Your task to perform on an android device: Clear the cart on walmart.com. Image 0: 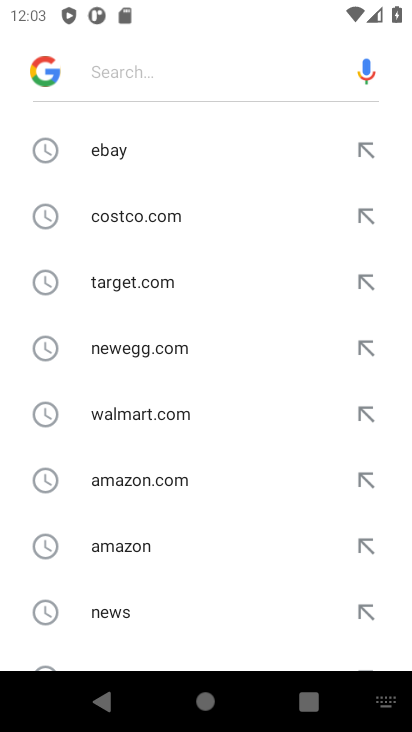
Step 0: click (101, 414)
Your task to perform on an android device: Clear the cart on walmart.com. Image 1: 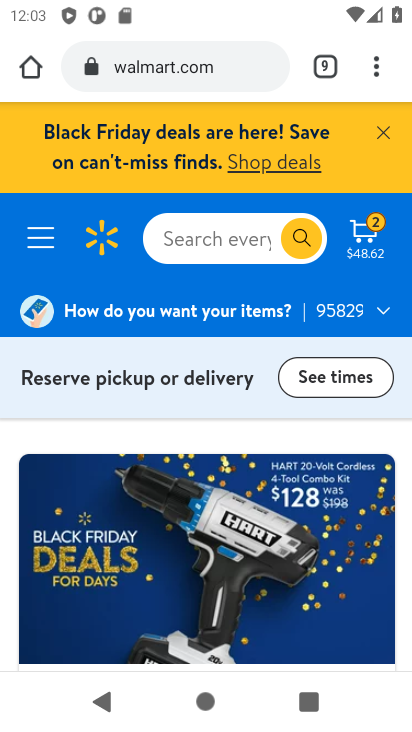
Step 1: click (371, 225)
Your task to perform on an android device: Clear the cart on walmart.com. Image 2: 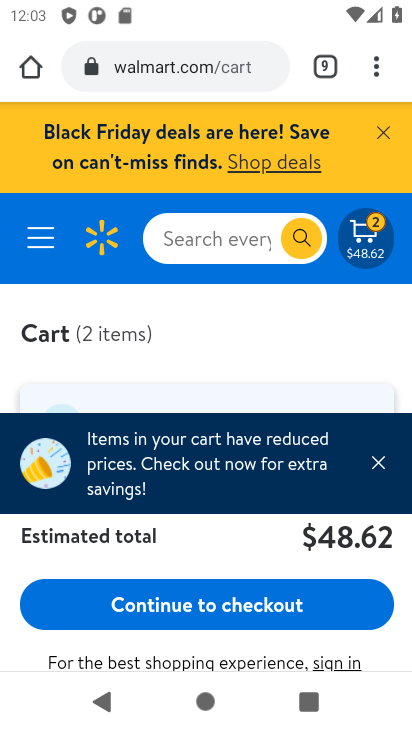
Step 2: drag from (75, 438) to (118, 116)
Your task to perform on an android device: Clear the cart on walmart.com. Image 3: 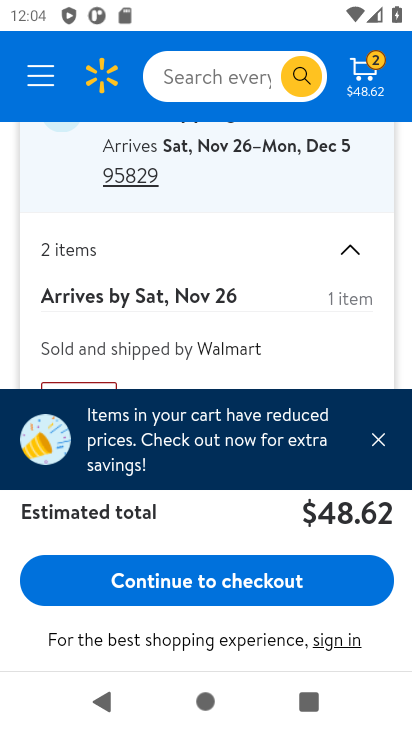
Step 3: drag from (173, 322) to (186, 167)
Your task to perform on an android device: Clear the cart on walmart.com. Image 4: 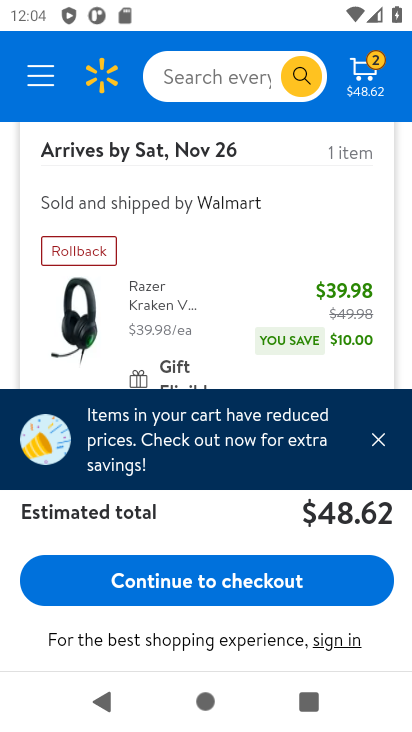
Step 4: drag from (147, 332) to (157, 202)
Your task to perform on an android device: Clear the cart on walmart.com. Image 5: 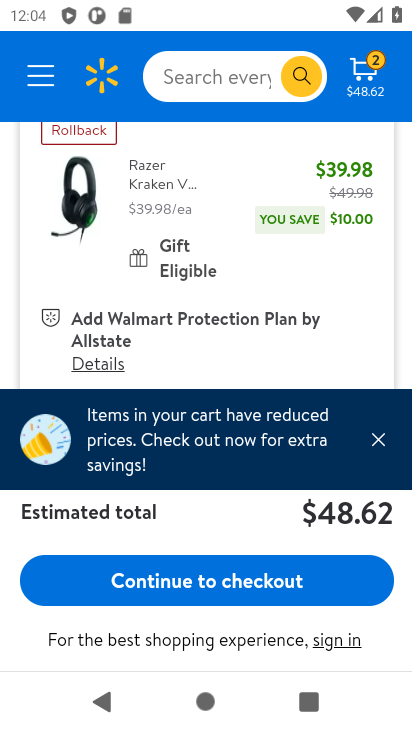
Step 5: drag from (170, 327) to (170, 189)
Your task to perform on an android device: Clear the cart on walmart.com. Image 6: 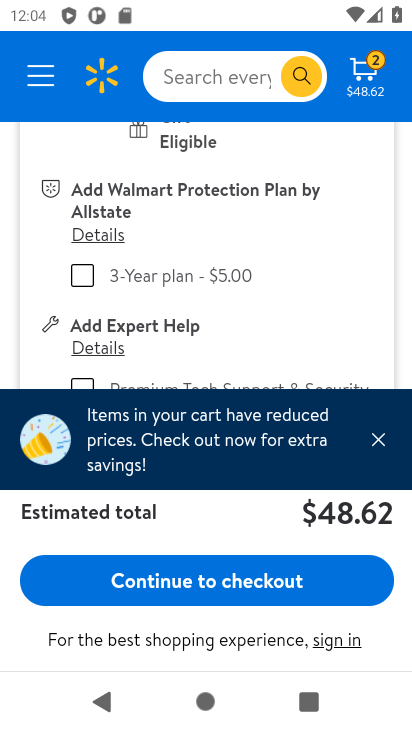
Step 6: click (375, 443)
Your task to perform on an android device: Clear the cart on walmart.com. Image 7: 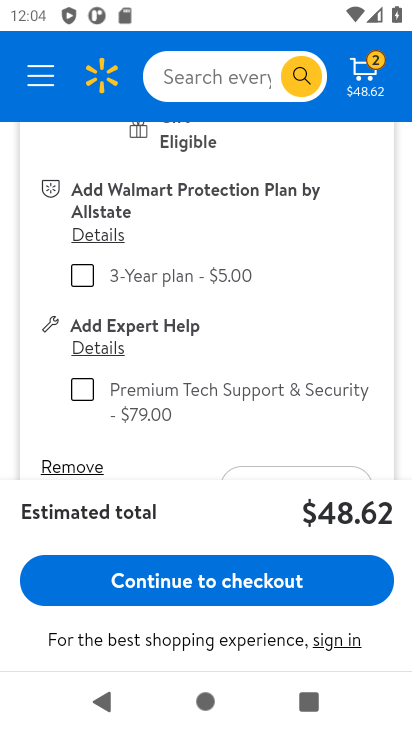
Step 7: click (55, 466)
Your task to perform on an android device: Clear the cart on walmart.com. Image 8: 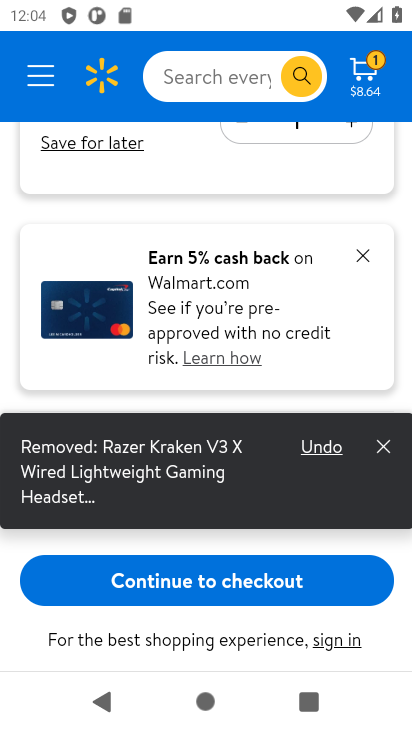
Step 8: click (380, 446)
Your task to perform on an android device: Clear the cart on walmart.com. Image 9: 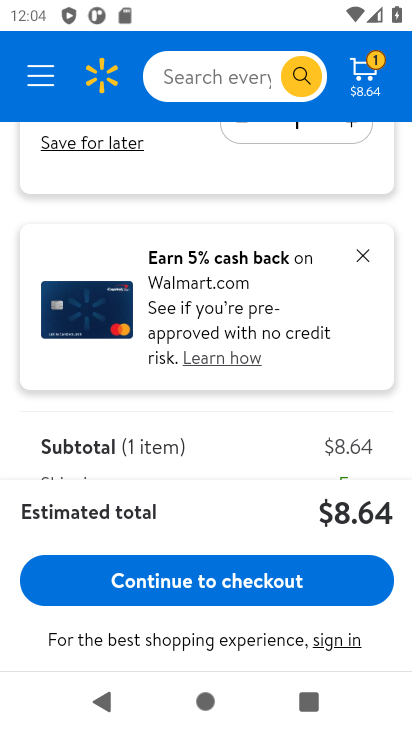
Step 9: drag from (182, 422) to (202, 183)
Your task to perform on an android device: Clear the cart on walmart.com. Image 10: 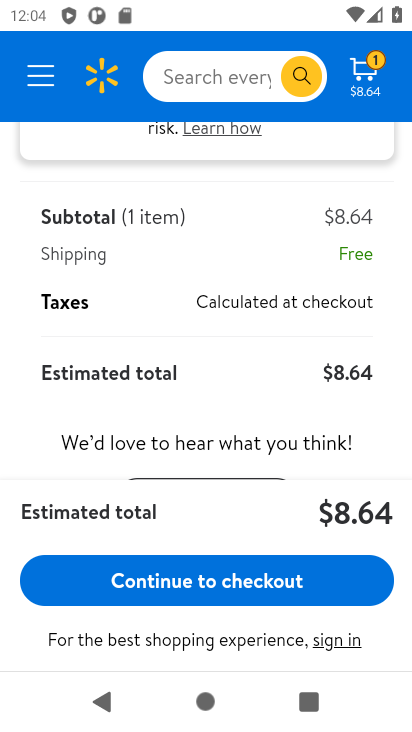
Step 10: drag from (149, 300) to (135, 525)
Your task to perform on an android device: Clear the cart on walmart.com. Image 11: 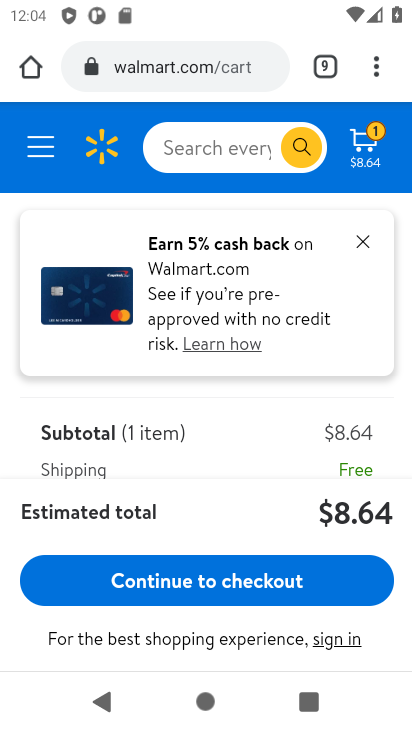
Step 11: drag from (185, 287) to (169, 468)
Your task to perform on an android device: Clear the cart on walmart.com. Image 12: 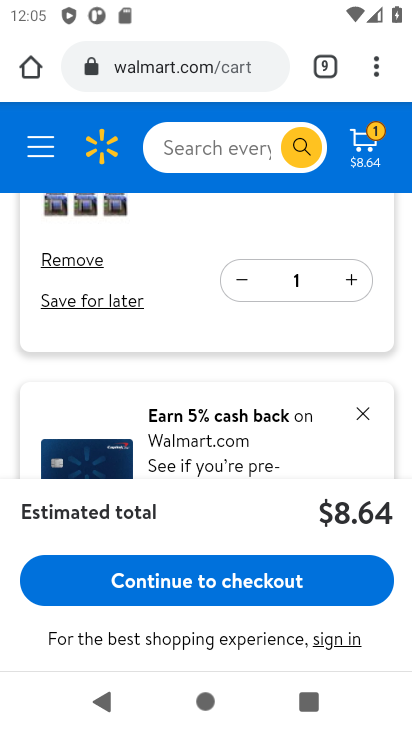
Step 12: click (68, 265)
Your task to perform on an android device: Clear the cart on walmart.com. Image 13: 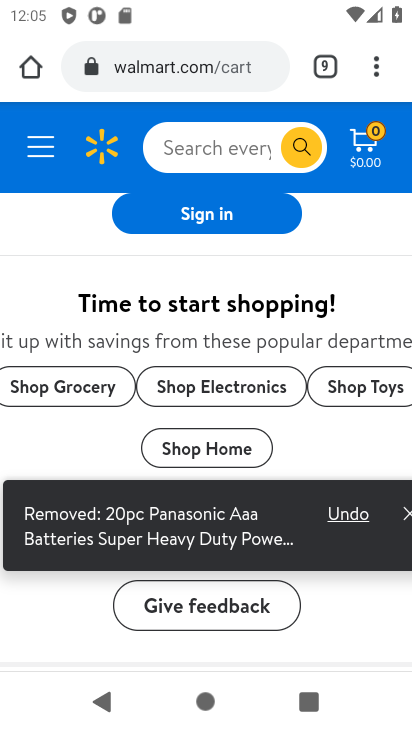
Step 13: task complete